Your task to perform on an android device: Do I have any events today? Image 0: 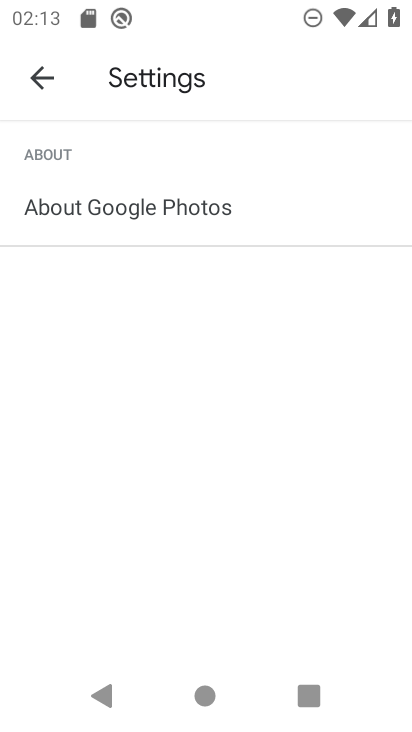
Step 0: press home button
Your task to perform on an android device: Do I have any events today? Image 1: 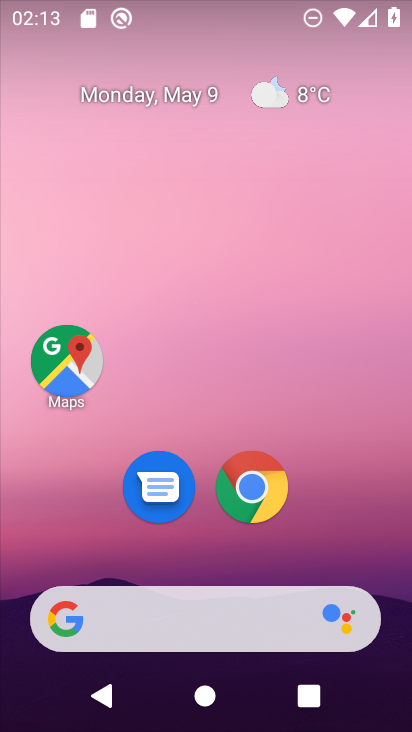
Step 1: drag from (206, 421) to (186, 41)
Your task to perform on an android device: Do I have any events today? Image 2: 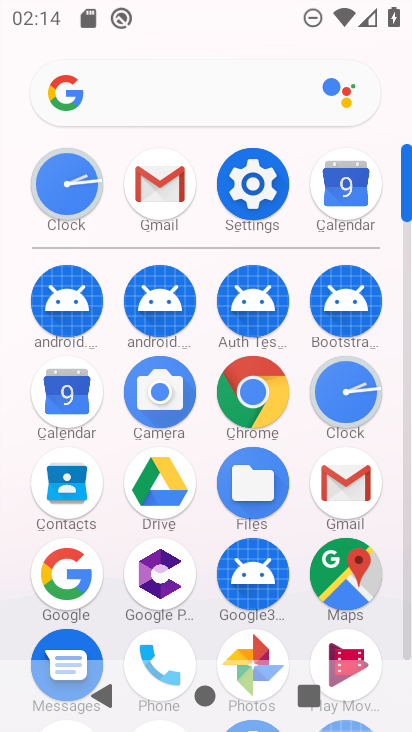
Step 2: click (71, 402)
Your task to perform on an android device: Do I have any events today? Image 3: 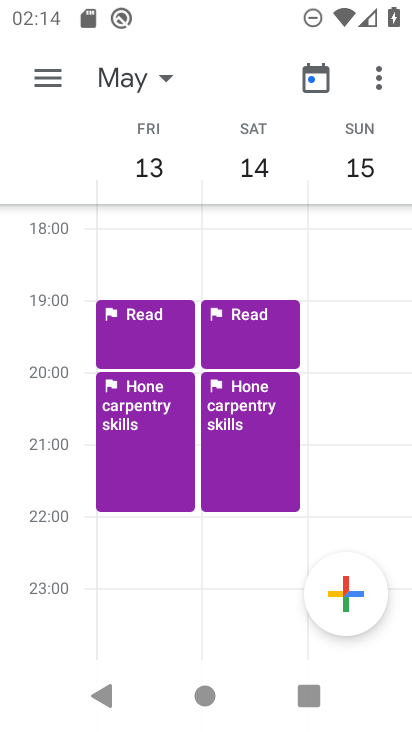
Step 3: click (52, 79)
Your task to perform on an android device: Do I have any events today? Image 4: 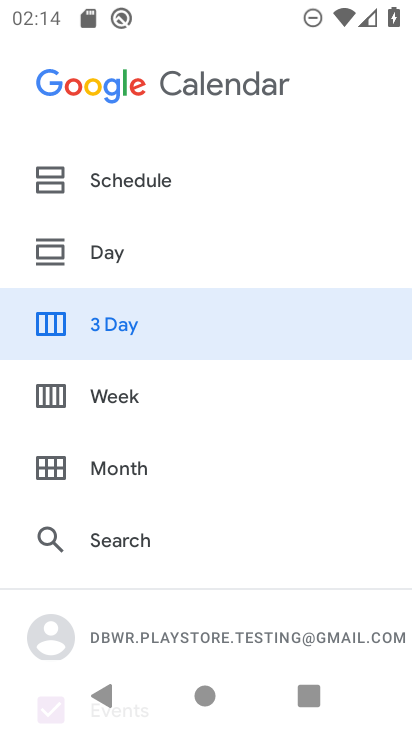
Step 4: click (103, 246)
Your task to perform on an android device: Do I have any events today? Image 5: 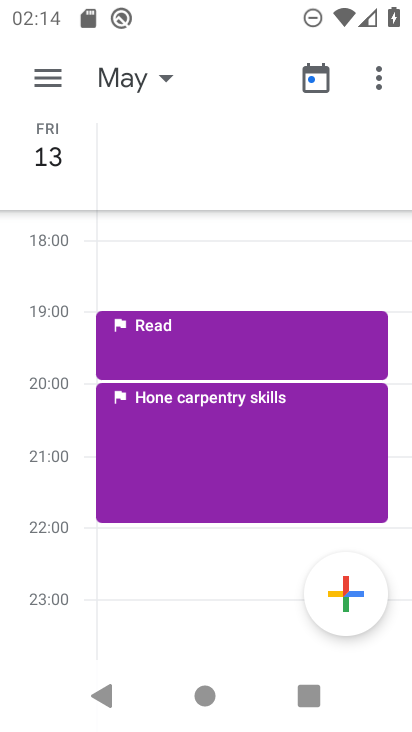
Step 5: drag from (198, 267) to (173, 565)
Your task to perform on an android device: Do I have any events today? Image 6: 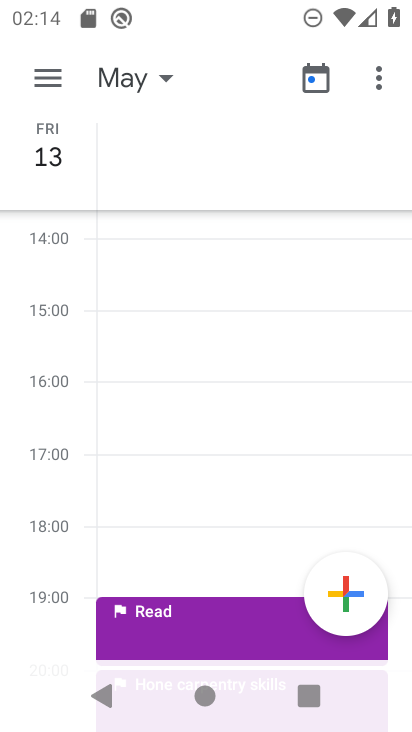
Step 6: click (150, 62)
Your task to perform on an android device: Do I have any events today? Image 7: 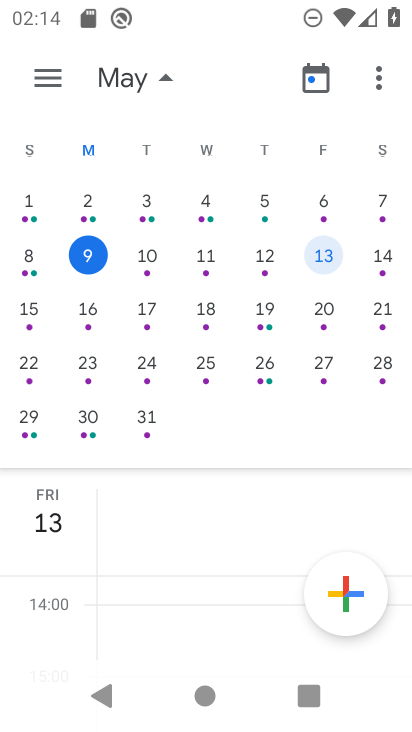
Step 7: click (89, 248)
Your task to perform on an android device: Do I have any events today? Image 8: 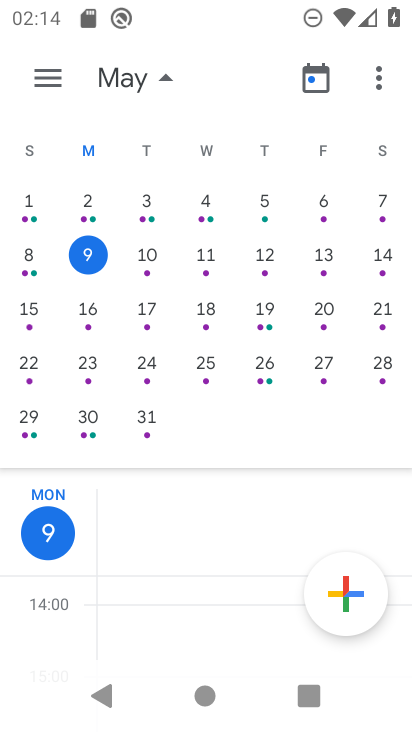
Step 8: task complete